Your task to perform on an android device: Open the calendar and show me this week's events? Image 0: 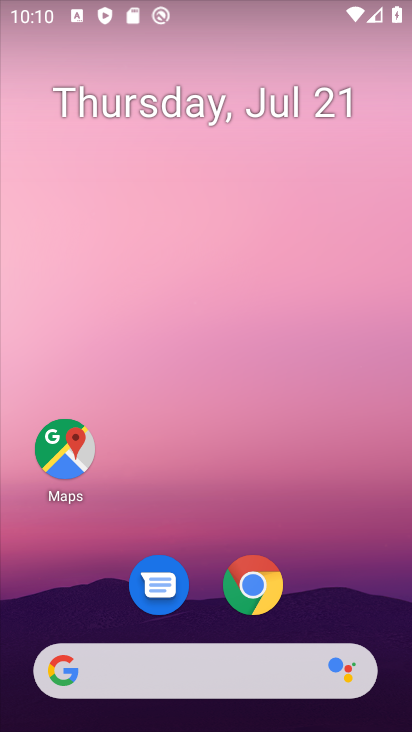
Step 0: drag from (325, 566) to (330, 82)
Your task to perform on an android device: Open the calendar and show me this week's events? Image 1: 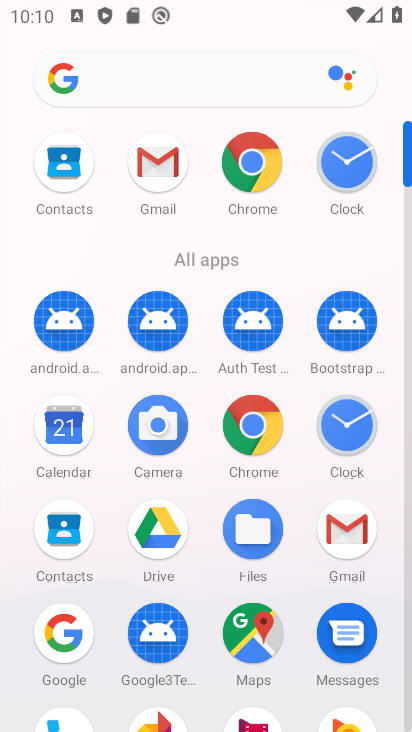
Step 1: click (70, 424)
Your task to perform on an android device: Open the calendar and show me this week's events? Image 2: 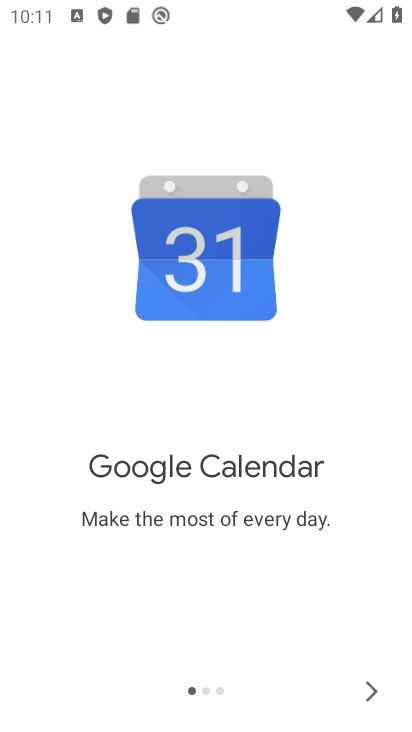
Step 2: click (366, 698)
Your task to perform on an android device: Open the calendar and show me this week's events? Image 3: 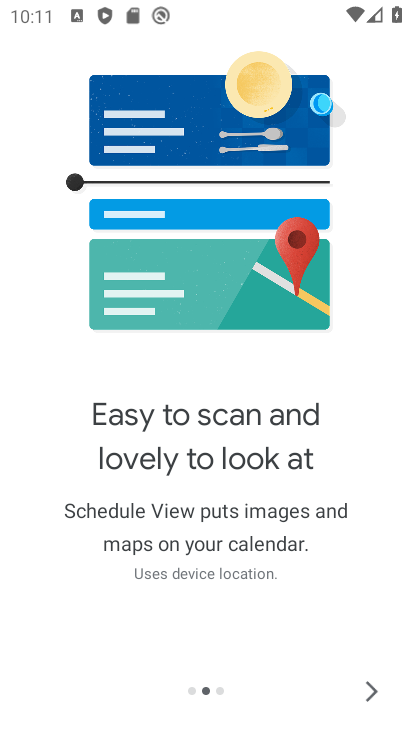
Step 3: click (366, 698)
Your task to perform on an android device: Open the calendar and show me this week's events? Image 4: 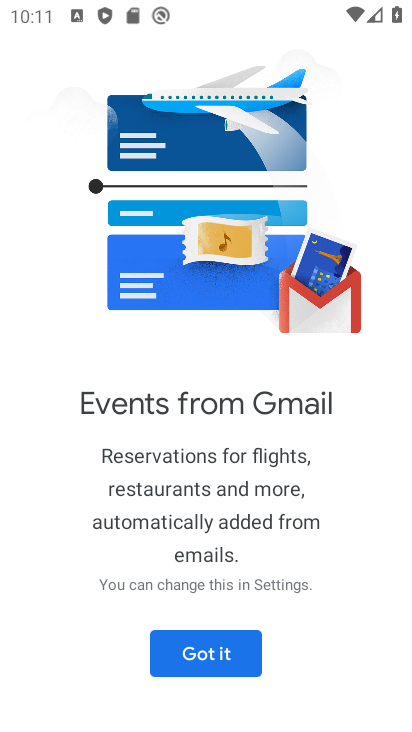
Step 4: click (235, 656)
Your task to perform on an android device: Open the calendar and show me this week's events? Image 5: 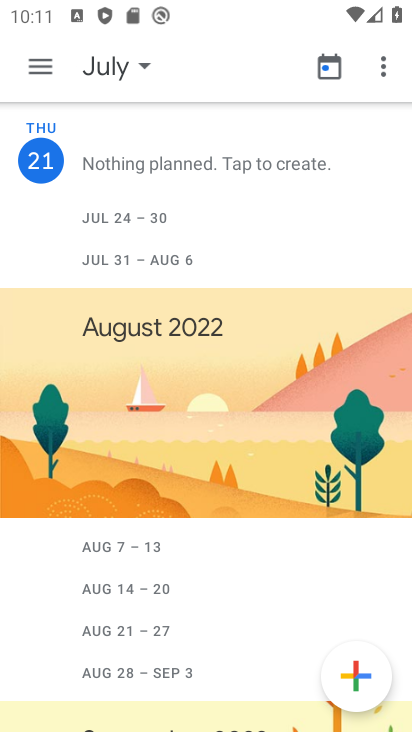
Step 5: click (42, 70)
Your task to perform on an android device: Open the calendar and show me this week's events? Image 6: 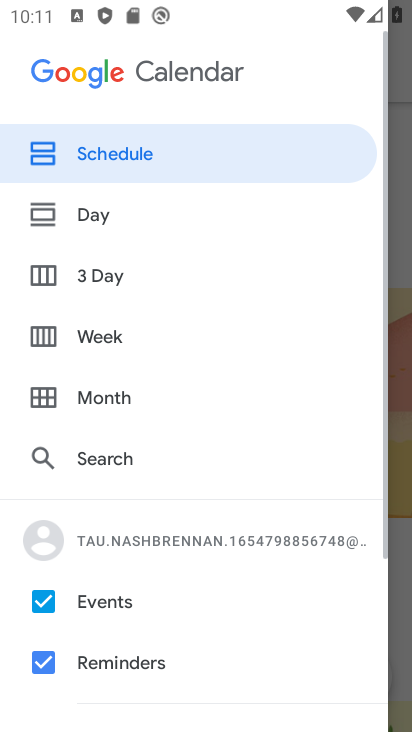
Step 6: click (39, 333)
Your task to perform on an android device: Open the calendar and show me this week's events? Image 7: 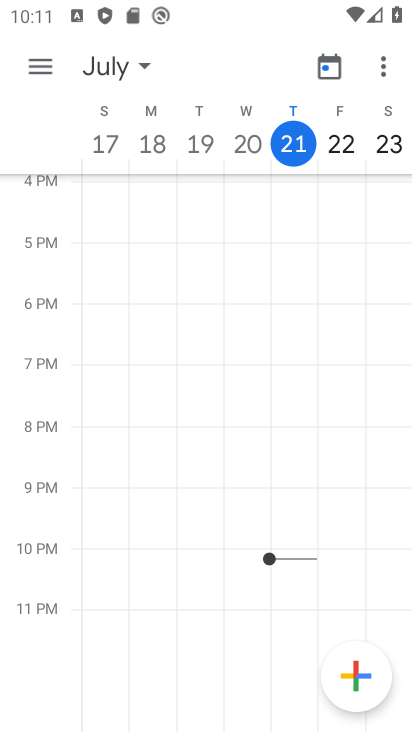
Step 7: task complete